Your task to perform on an android device: Open accessibility settings Image 0: 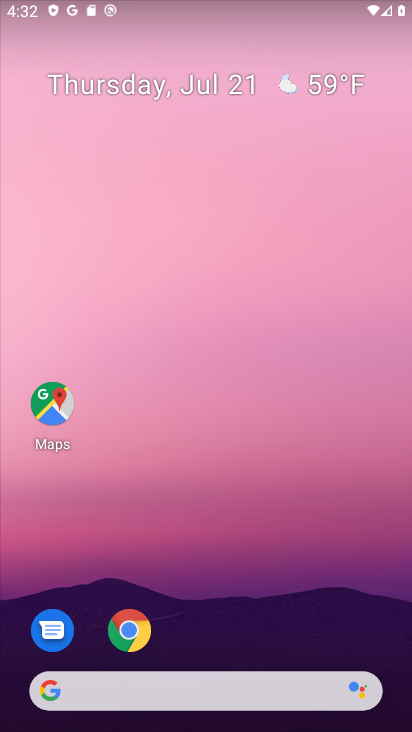
Step 0: drag from (271, 620) to (218, 225)
Your task to perform on an android device: Open accessibility settings Image 1: 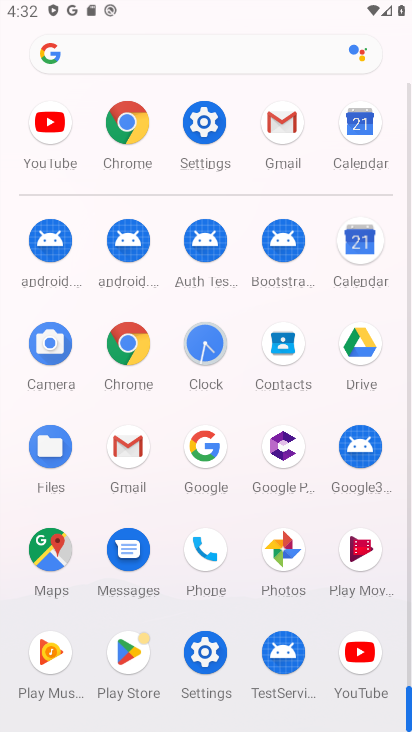
Step 1: click (198, 128)
Your task to perform on an android device: Open accessibility settings Image 2: 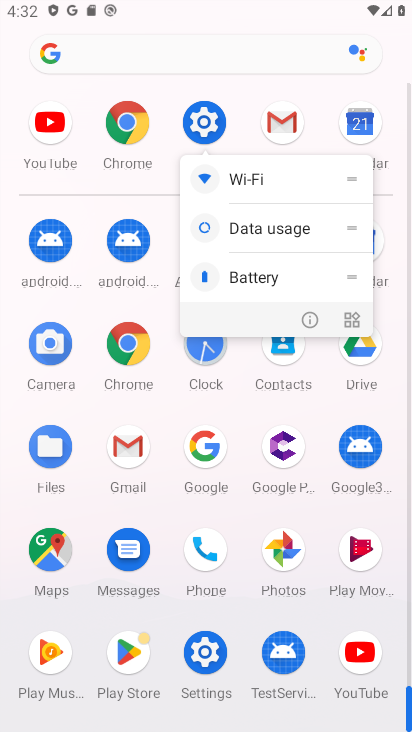
Step 2: click (188, 129)
Your task to perform on an android device: Open accessibility settings Image 3: 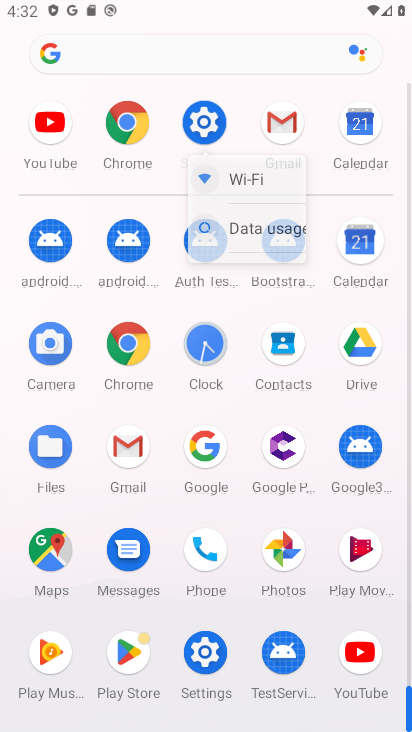
Step 3: click (202, 125)
Your task to perform on an android device: Open accessibility settings Image 4: 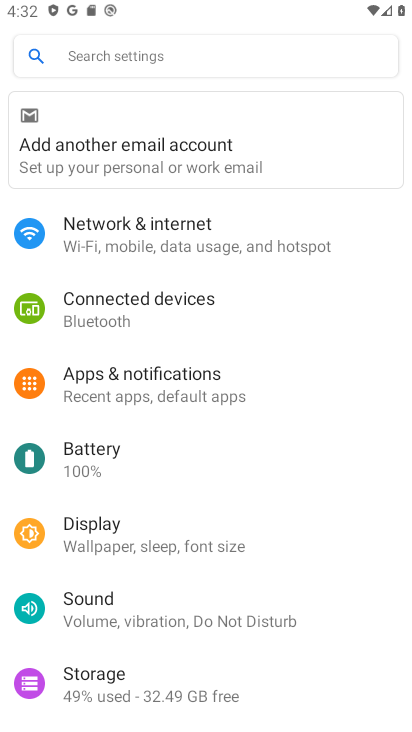
Step 4: drag from (125, 442) to (153, 229)
Your task to perform on an android device: Open accessibility settings Image 5: 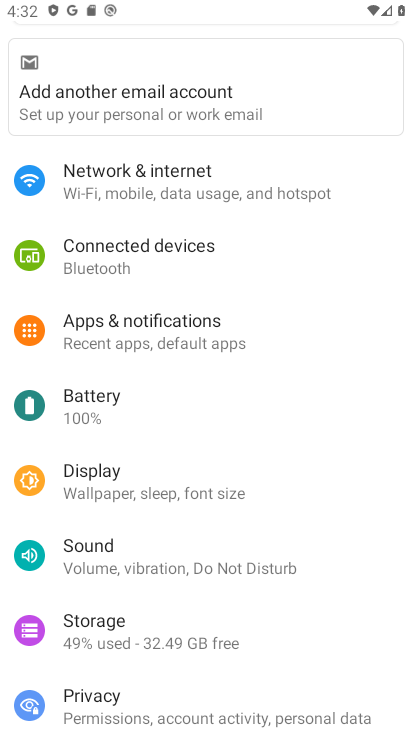
Step 5: drag from (197, 534) to (172, 203)
Your task to perform on an android device: Open accessibility settings Image 6: 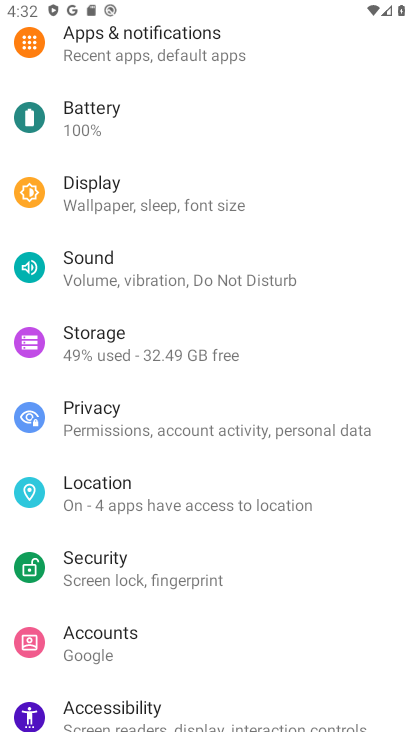
Step 6: drag from (175, 492) to (154, 210)
Your task to perform on an android device: Open accessibility settings Image 7: 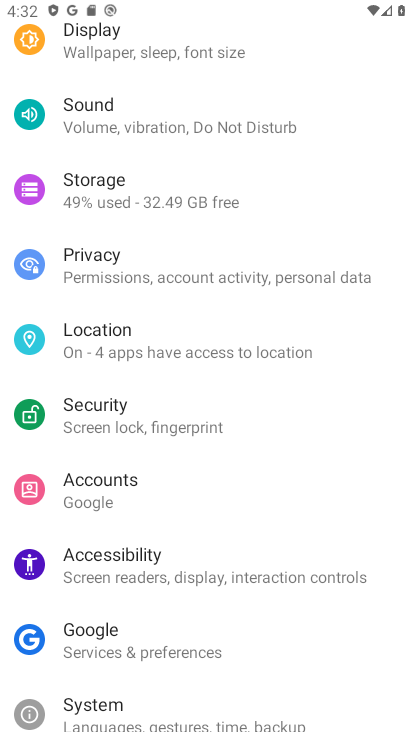
Step 7: drag from (173, 443) to (174, 214)
Your task to perform on an android device: Open accessibility settings Image 8: 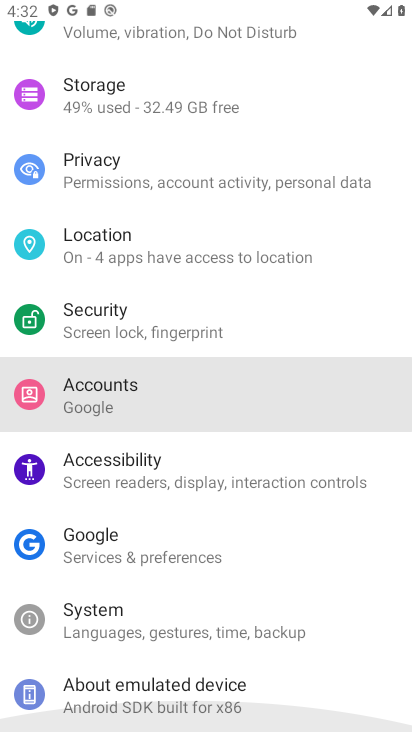
Step 8: drag from (228, 535) to (190, 211)
Your task to perform on an android device: Open accessibility settings Image 9: 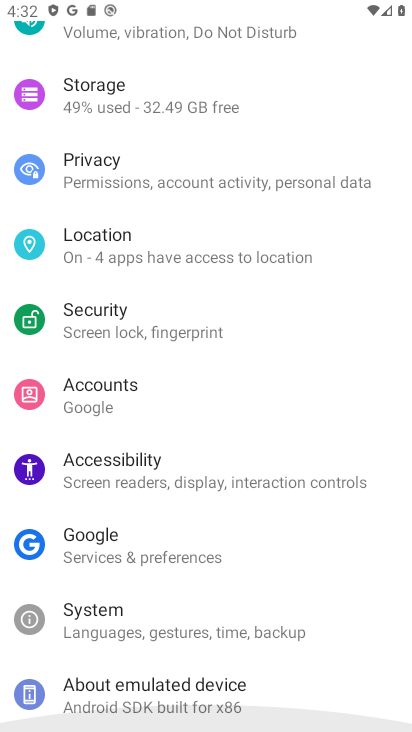
Step 9: drag from (203, 460) to (189, 210)
Your task to perform on an android device: Open accessibility settings Image 10: 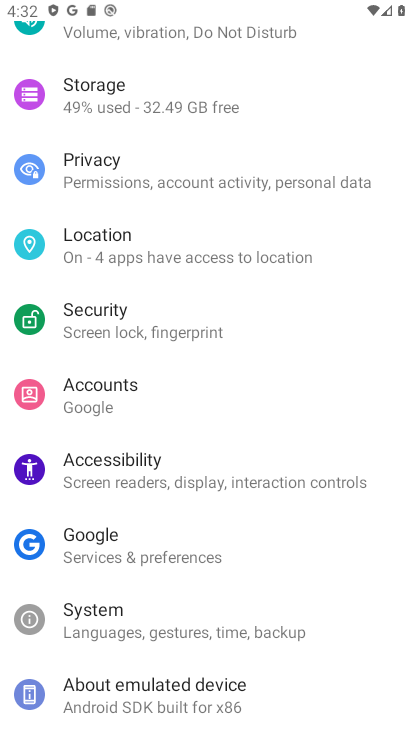
Step 10: click (100, 458)
Your task to perform on an android device: Open accessibility settings Image 11: 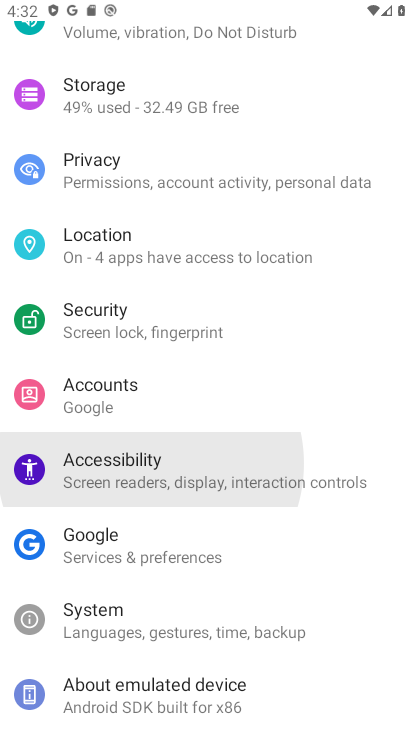
Step 11: click (100, 458)
Your task to perform on an android device: Open accessibility settings Image 12: 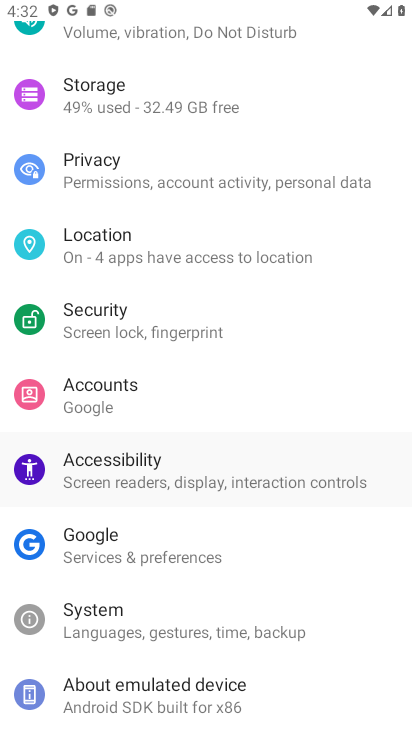
Step 12: click (103, 459)
Your task to perform on an android device: Open accessibility settings Image 13: 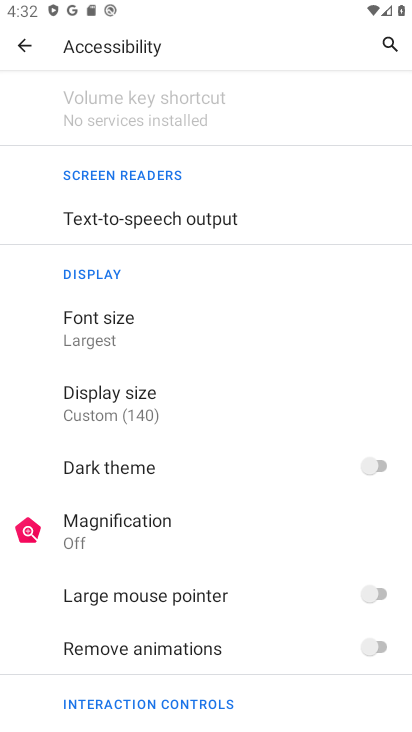
Step 13: task complete